Your task to perform on an android device: Go to Android settings Image 0: 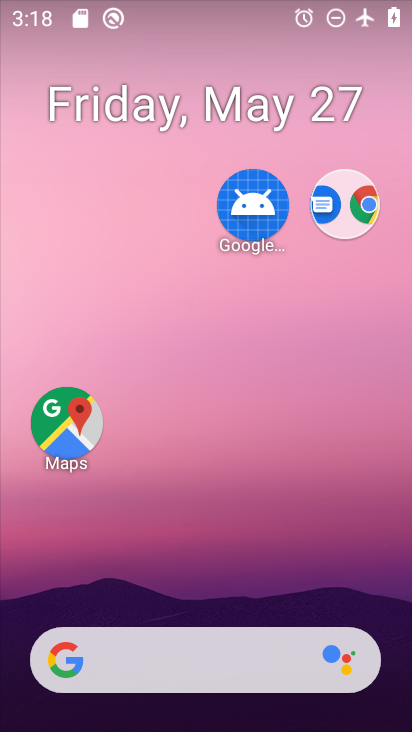
Step 0: drag from (285, 630) to (387, 150)
Your task to perform on an android device: Go to Android settings Image 1: 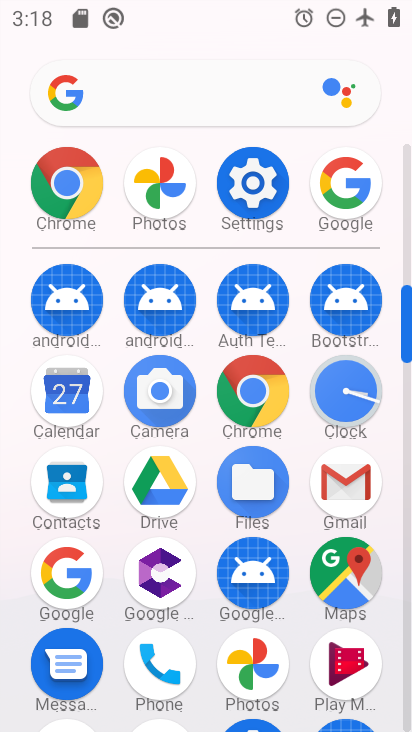
Step 1: click (285, 180)
Your task to perform on an android device: Go to Android settings Image 2: 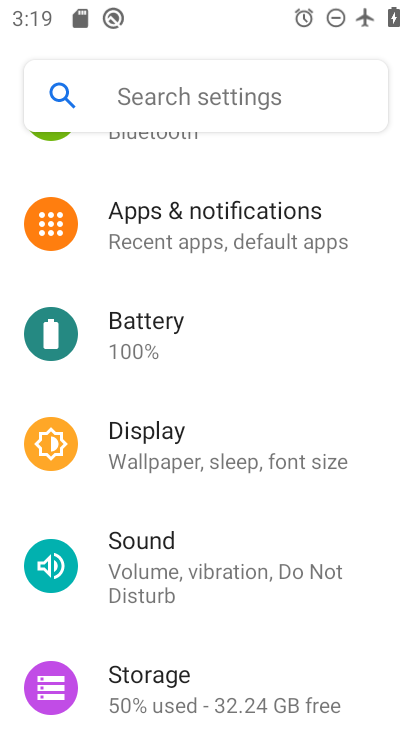
Step 2: drag from (234, 527) to (263, 252)
Your task to perform on an android device: Go to Android settings Image 3: 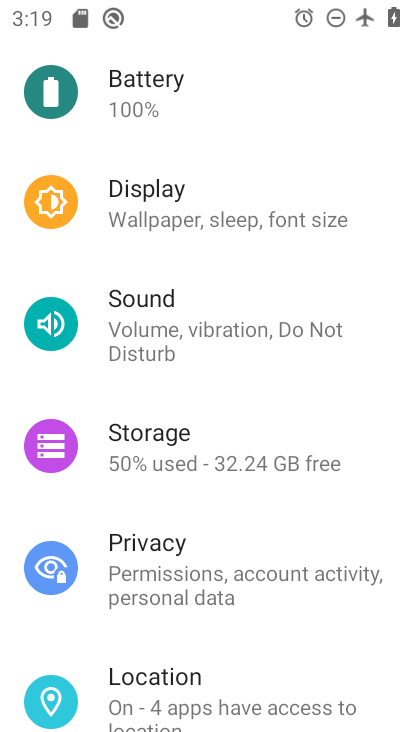
Step 3: drag from (227, 697) to (263, 333)
Your task to perform on an android device: Go to Android settings Image 4: 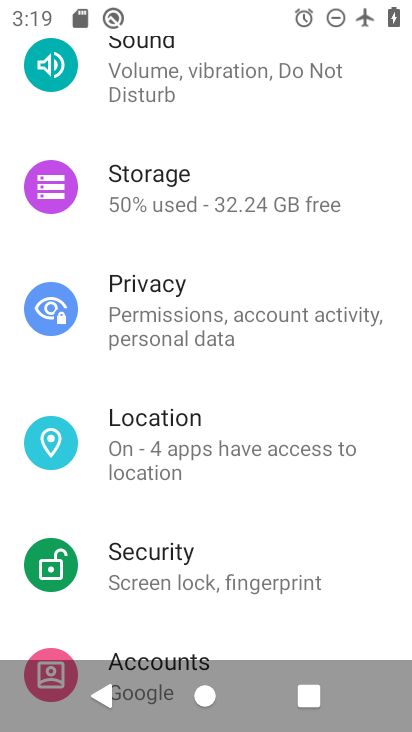
Step 4: drag from (241, 540) to (261, 333)
Your task to perform on an android device: Go to Android settings Image 5: 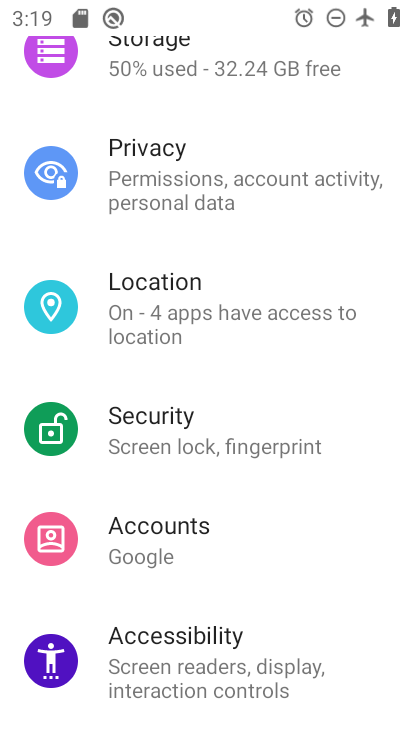
Step 5: drag from (247, 523) to (282, 285)
Your task to perform on an android device: Go to Android settings Image 6: 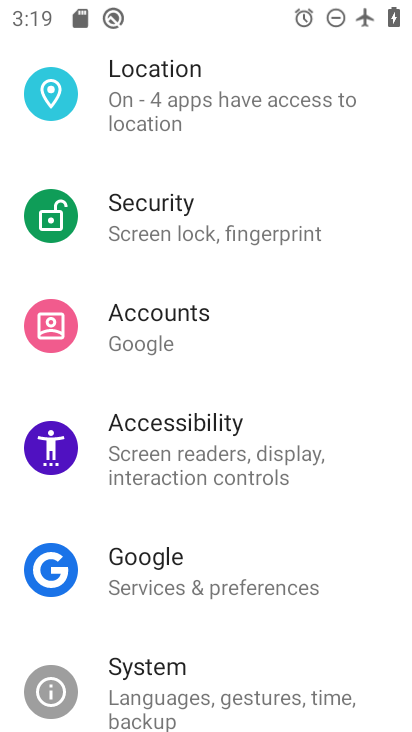
Step 6: drag from (265, 463) to (295, 337)
Your task to perform on an android device: Go to Android settings Image 7: 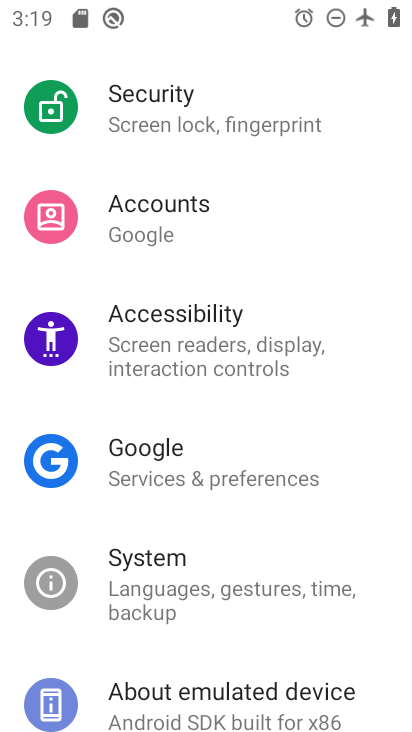
Step 7: drag from (249, 548) to (332, 119)
Your task to perform on an android device: Go to Android settings Image 8: 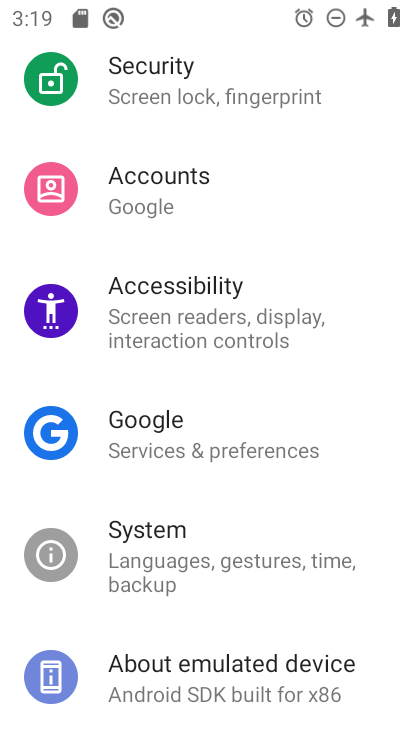
Step 8: click (214, 686)
Your task to perform on an android device: Go to Android settings Image 9: 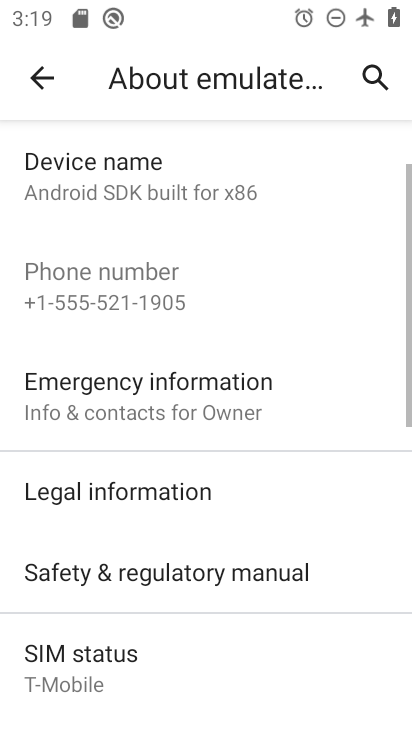
Step 9: drag from (214, 686) to (234, 209)
Your task to perform on an android device: Go to Android settings Image 10: 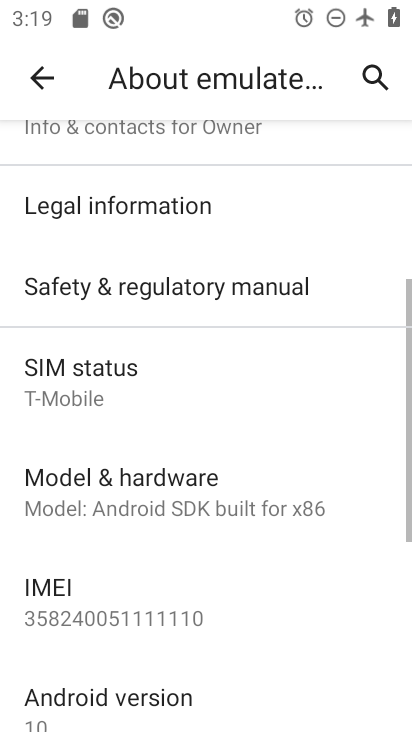
Step 10: click (198, 706)
Your task to perform on an android device: Go to Android settings Image 11: 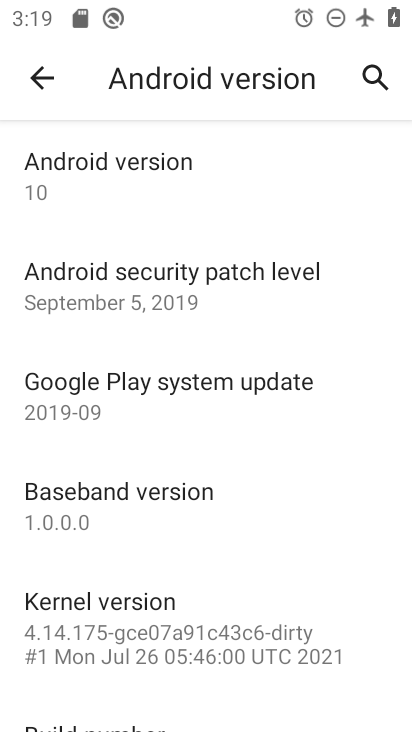
Step 11: task complete